Your task to perform on an android device: open chrome and create a bookmark for the current page Image 0: 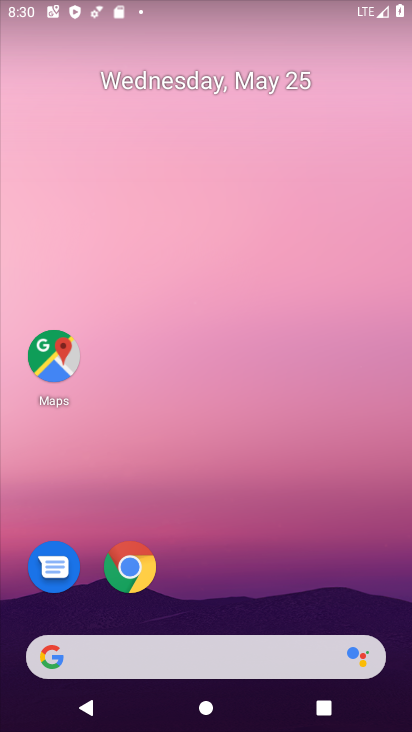
Step 0: click (139, 561)
Your task to perform on an android device: open chrome and create a bookmark for the current page Image 1: 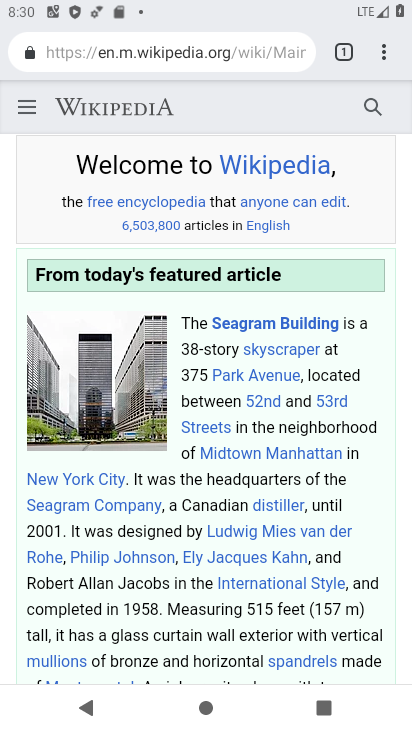
Step 1: click (381, 49)
Your task to perform on an android device: open chrome and create a bookmark for the current page Image 2: 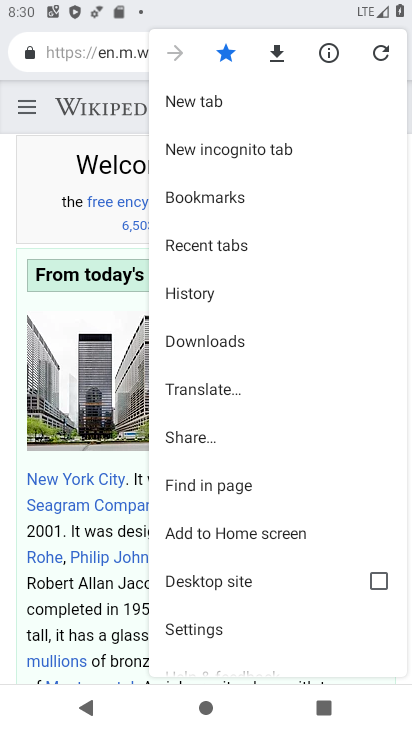
Step 2: task complete